Your task to perform on an android device: turn on location history Image 0: 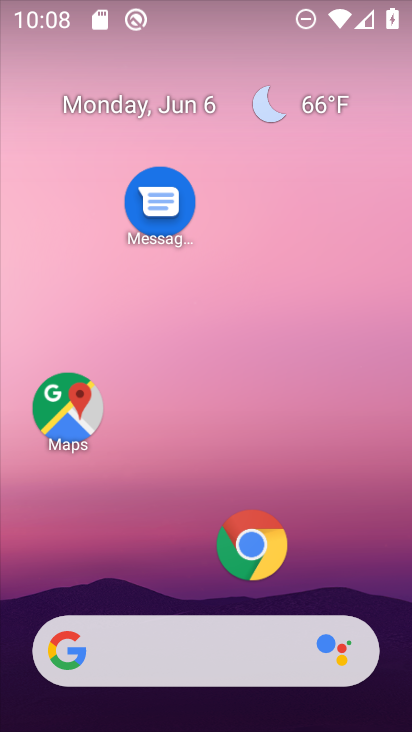
Step 0: drag from (182, 516) to (249, 136)
Your task to perform on an android device: turn on location history Image 1: 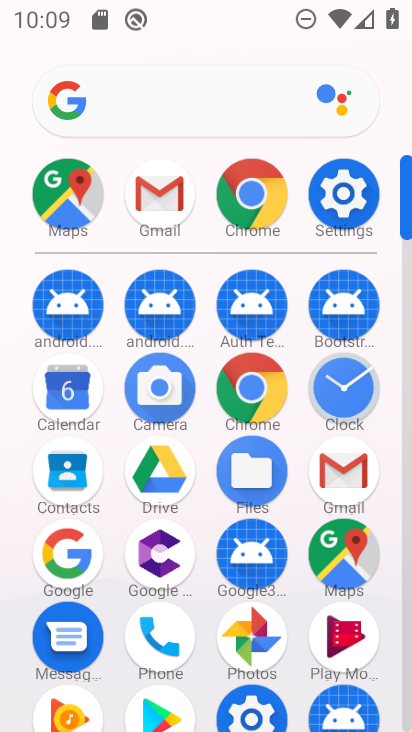
Step 1: click (336, 199)
Your task to perform on an android device: turn on location history Image 2: 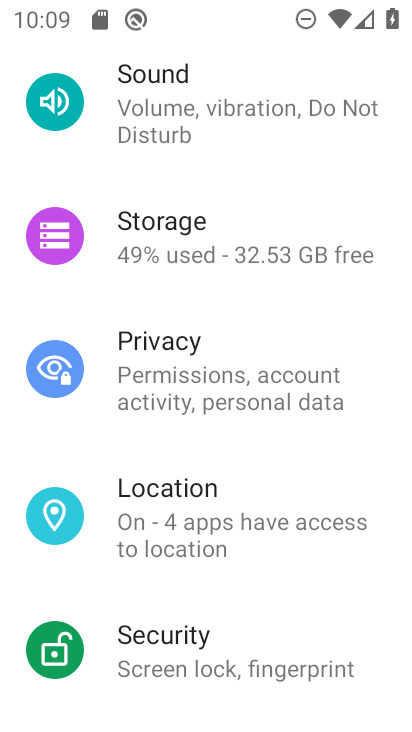
Step 2: click (200, 542)
Your task to perform on an android device: turn on location history Image 3: 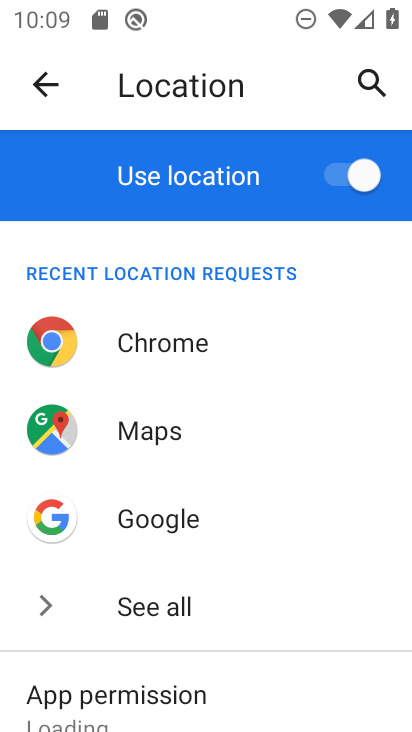
Step 3: drag from (205, 597) to (356, 176)
Your task to perform on an android device: turn on location history Image 4: 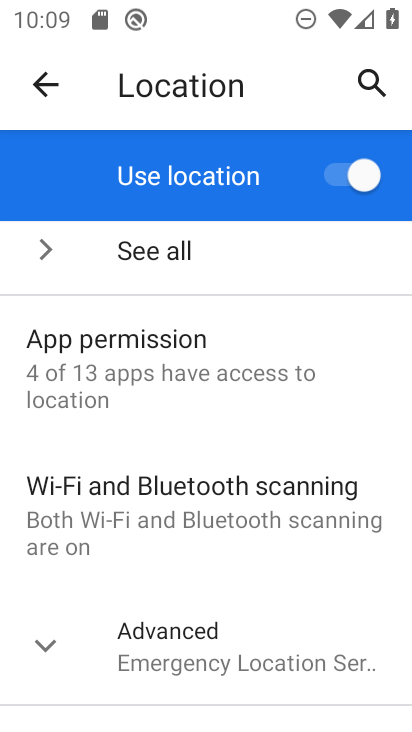
Step 4: click (37, 644)
Your task to perform on an android device: turn on location history Image 5: 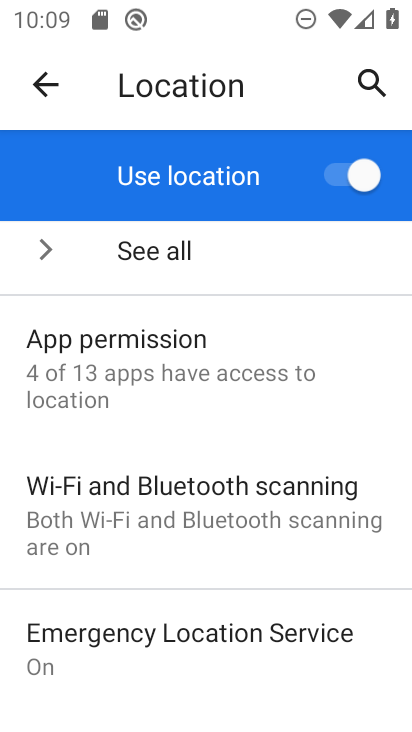
Step 5: drag from (78, 669) to (308, 181)
Your task to perform on an android device: turn on location history Image 6: 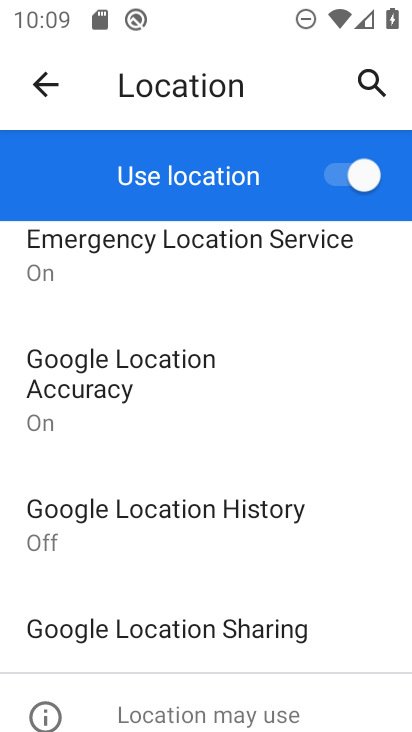
Step 6: click (65, 529)
Your task to perform on an android device: turn on location history Image 7: 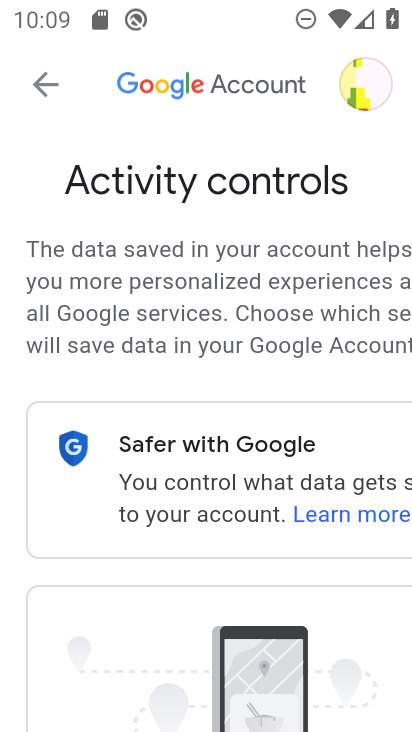
Step 7: drag from (267, 595) to (410, 196)
Your task to perform on an android device: turn on location history Image 8: 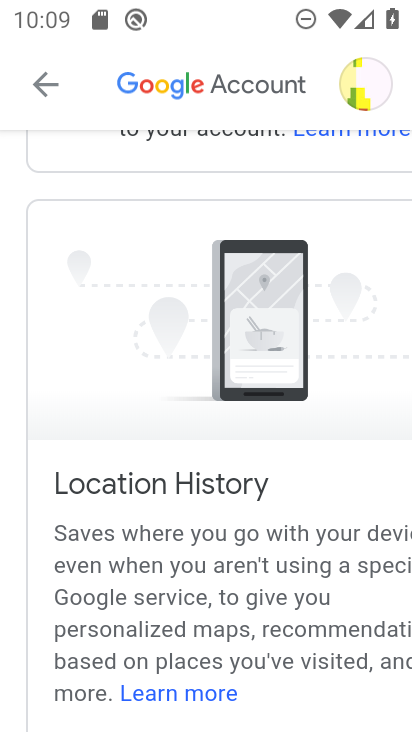
Step 8: drag from (240, 615) to (337, 84)
Your task to perform on an android device: turn on location history Image 9: 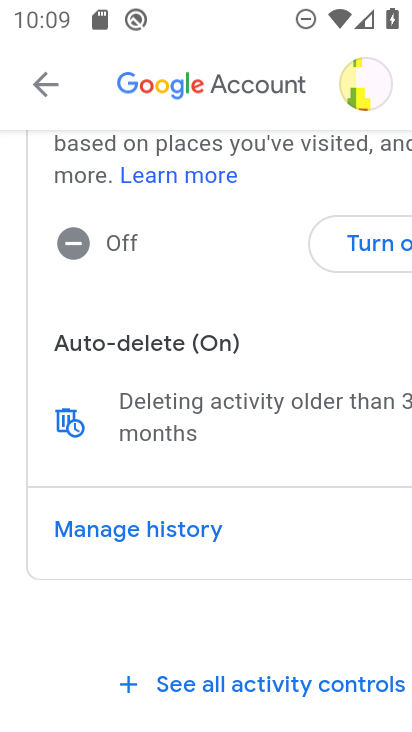
Step 9: click (390, 242)
Your task to perform on an android device: turn on location history Image 10: 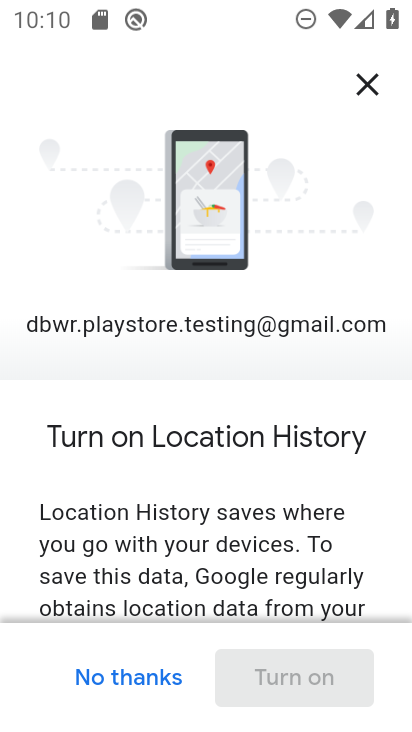
Step 10: click (140, 676)
Your task to perform on an android device: turn on location history Image 11: 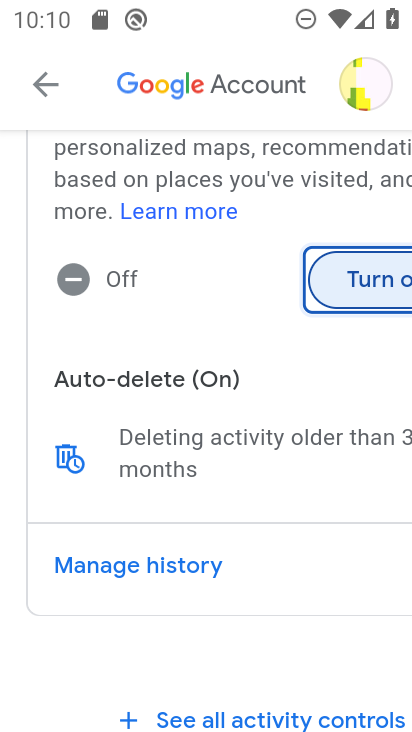
Step 11: task complete